Your task to perform on an android device: Do I have any events today? Image 0: 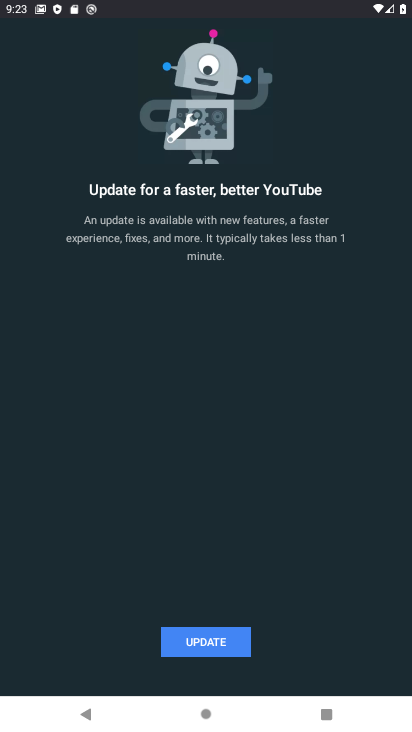
Step 0: press home button
Your task to perform on an android device: Do I have any events today? Image 1: 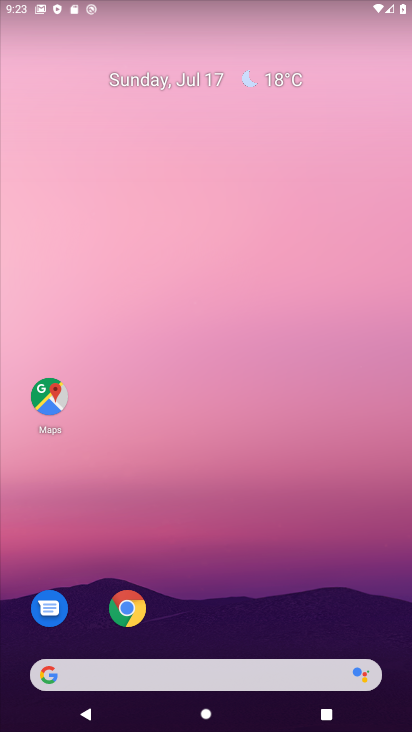
Step 1: drag from (255, 510) to (243, 157)
Your task to perform on an android device: Do I have any events today? Image 2: 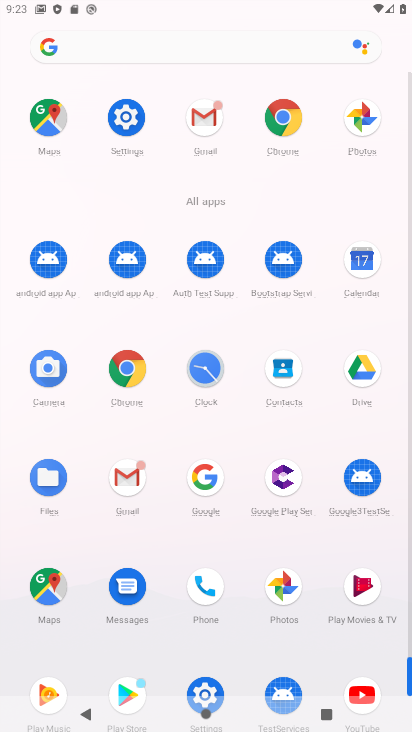
Step 2: click (363, 262)
Your task to perform on an android device: Do I have any events today? Image 3: 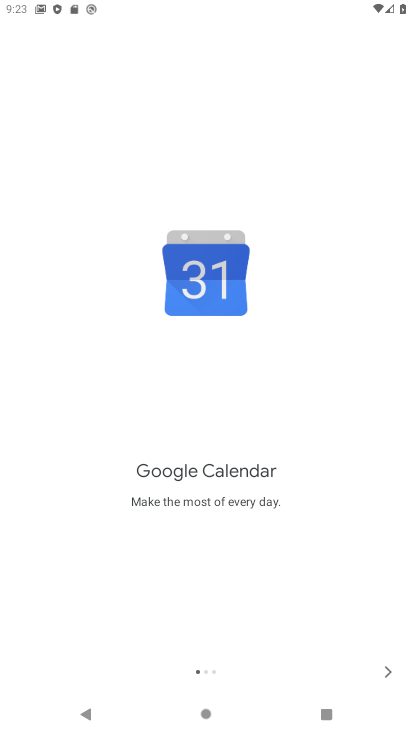
Step 3: click (385, 668)
Your task to perform on an android device: Do I have any events today? Image 4: 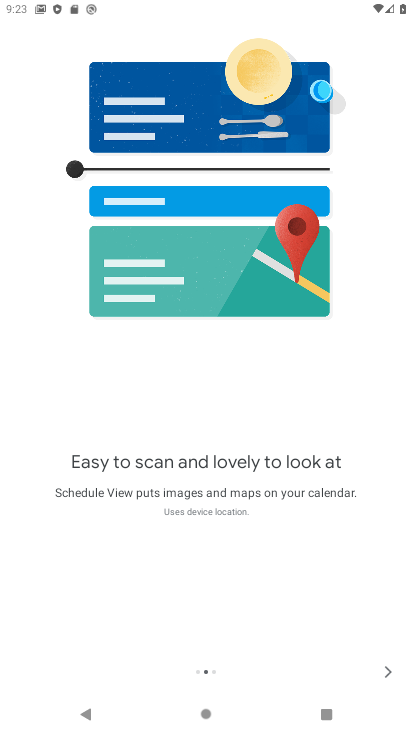
Step 4: click (385, 668)
Your task to perform on an android device: Do I have any events today? Image 5: 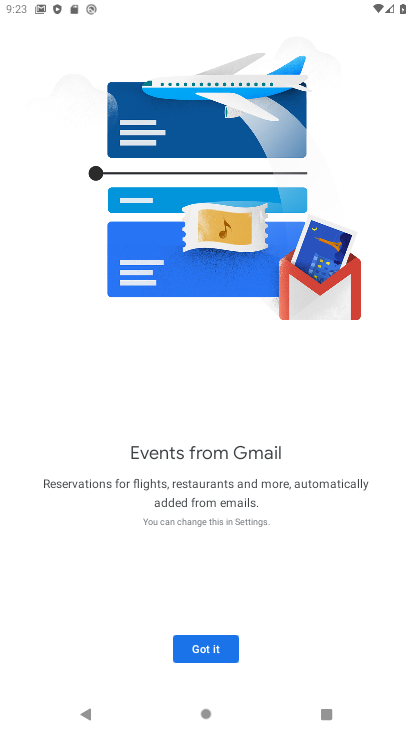
Step 5: click (385, 668)
Your task to perform on an android device: Do I have any events today? Image 6: 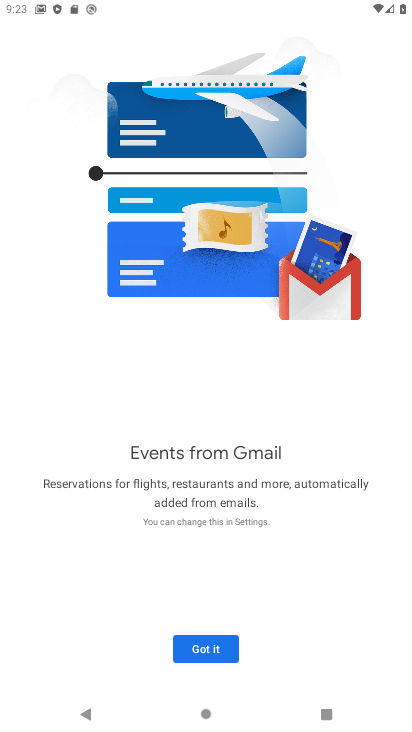
Step 6: click (211, 646)
Your task to perform on an android device: Do I have any events today? Image 7: 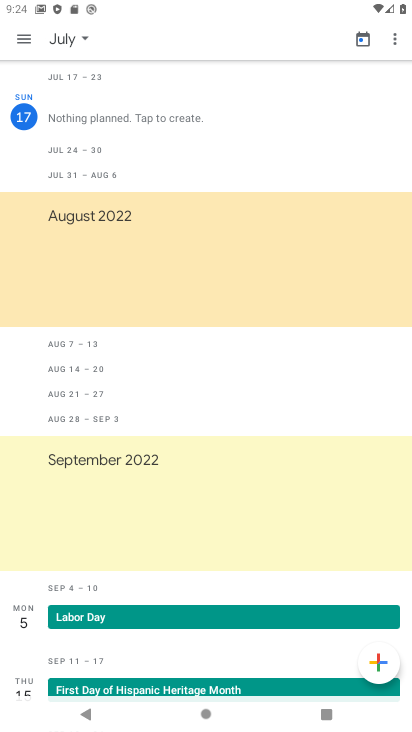
Step 7: task complete